Your task to perform on an android device: Go to network settings Image 0: 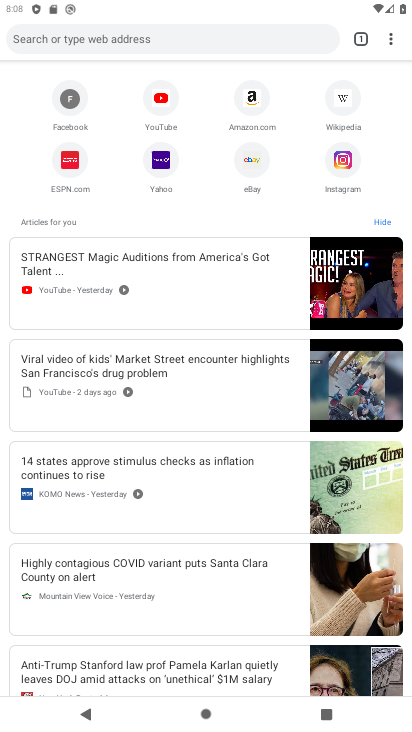
Step 0: press home button
Your task to perform on an android device: Go to network settings Image 1: 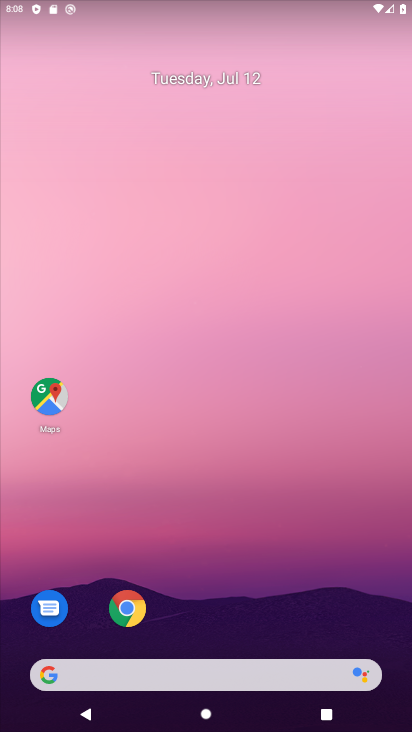
Step 1: drag from (329, 529) to (344, 236)
Your task to perform on an android device: Go to network settings Image 2: 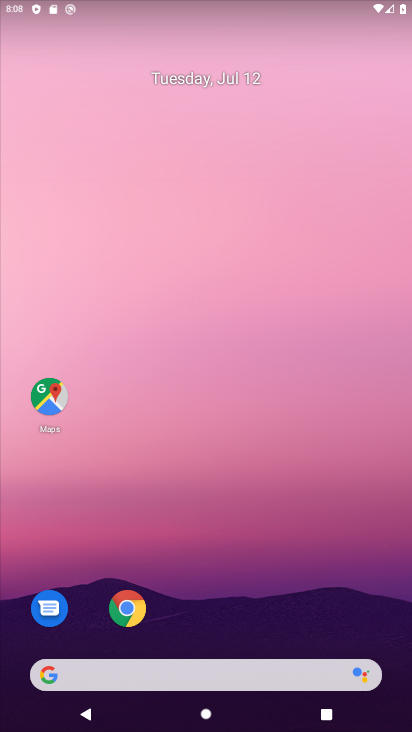
Step 2: drag from (327, 591) to (342, 109)
Your task to perform on an android device: Go to network settings Image 3: 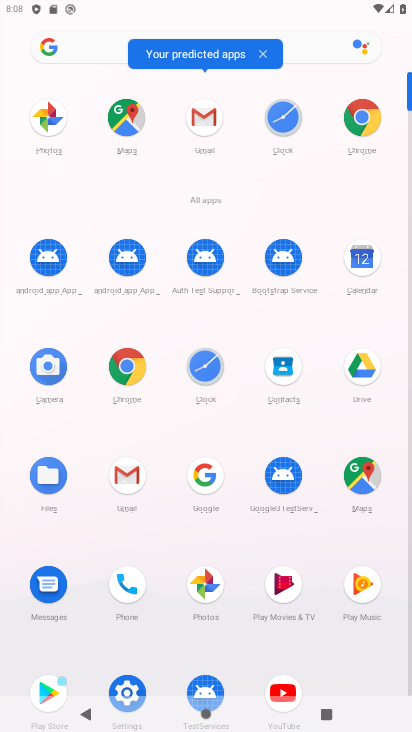
Step 3: click (129, 687)
Your task to perform on an android device: Go to network settings Image 4: 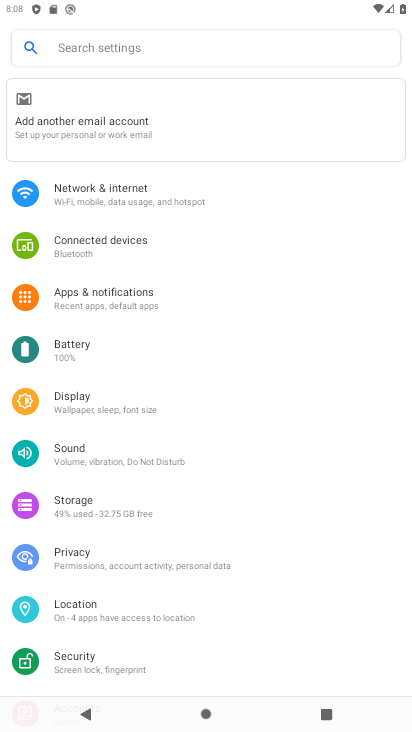
Step 4: click (210, 200)
Your task to perform on an android device: Go to network settings Image 5: 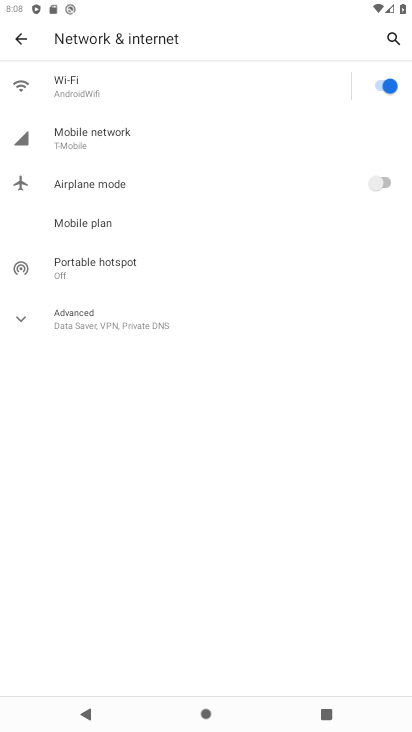
Step 5: click (120, 134)
Your task to perform on an android device: Go to network settings Image 6: 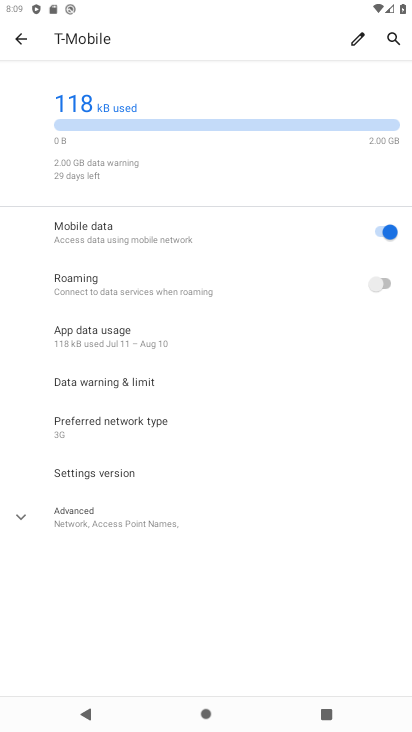
Step 6: task complete